Your task to perform on an android device: Open display settings Image 0: 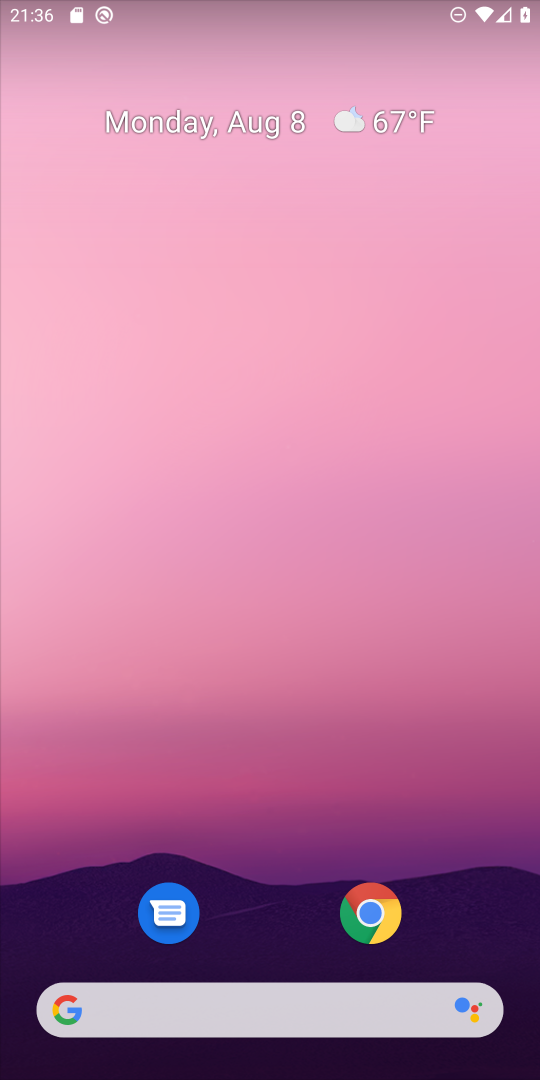
Step 0: drag from (241, 999) to (330, 254)
Your task to perform on an android device: Open display settings Image 1: 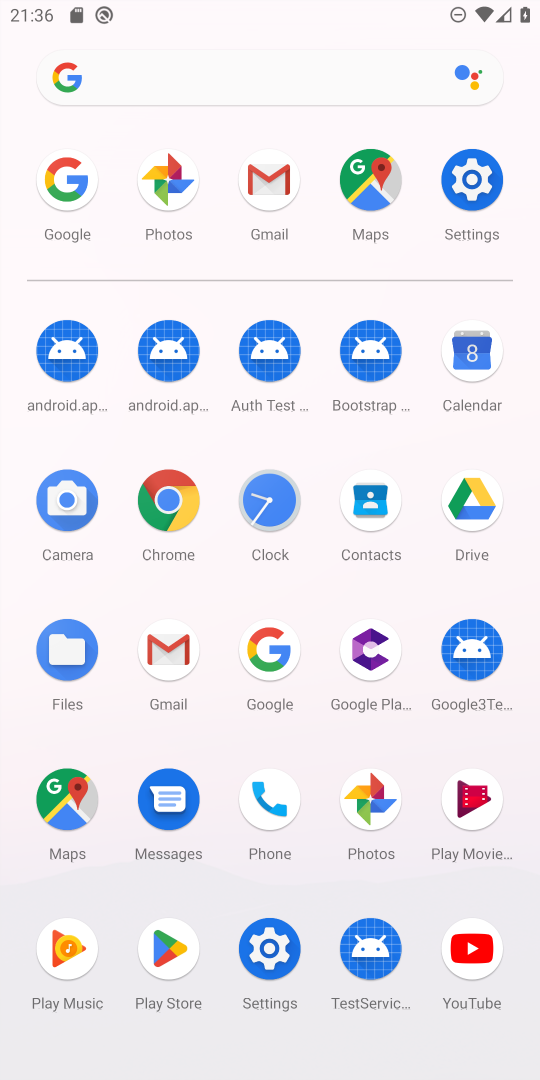
Step 1: click (470, 179)
Your task to perform on an android device: Open display settings Image 2: 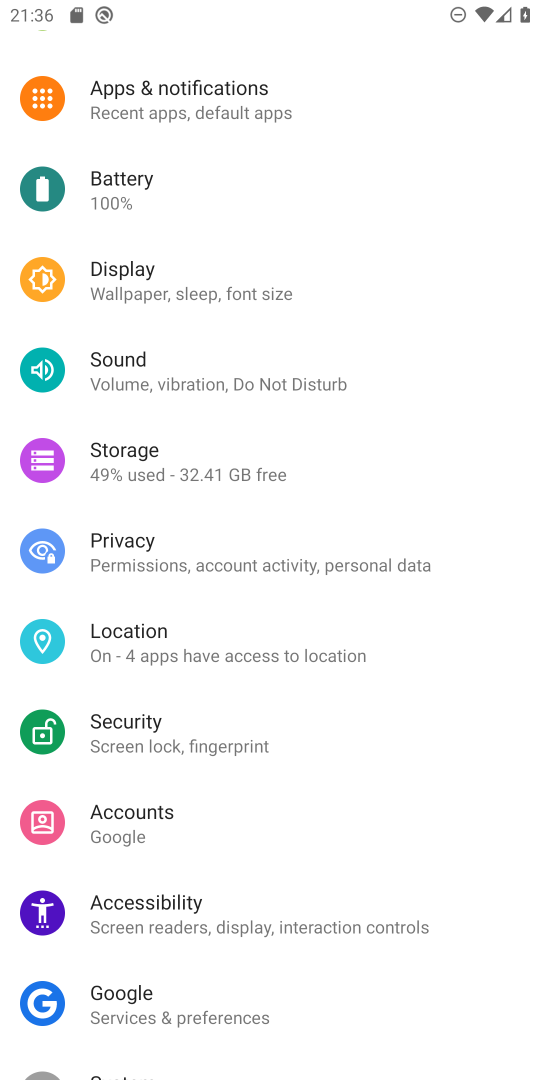
Step 2: click (163, 298)
Your task to perform on an android device: Open display settings Image 3: 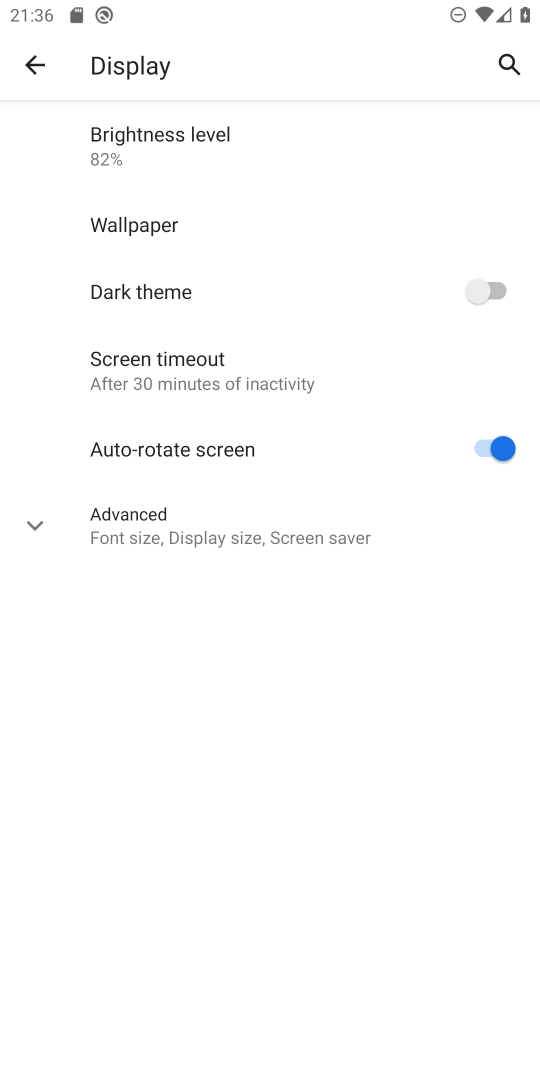
Step 3: task complete